Your task to perform on an android device: Show me the alarms in the clock app Image 0: 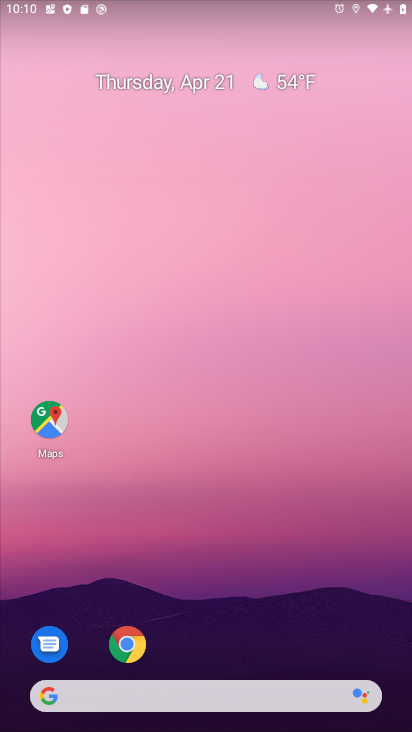
Step 0: drag from (165, 614) to (154, 185)
Your task to perform on an android device: Show me the alarms in the clock app Image 1: 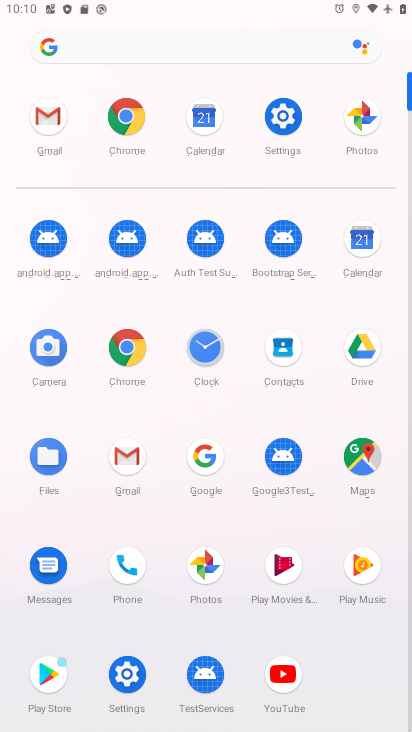
Step 1: click (196, 347)
Your task to perform on an android device: Show me the alarms in the clock app Image 2: 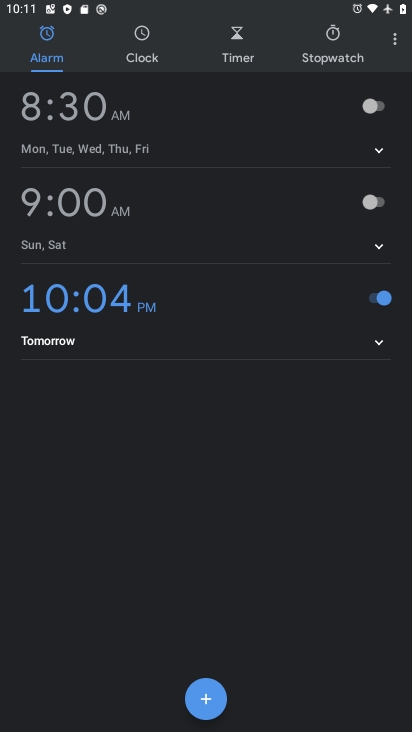
Step 2: task complete